Your task to perform on an android device: Go to location settings Image 0: 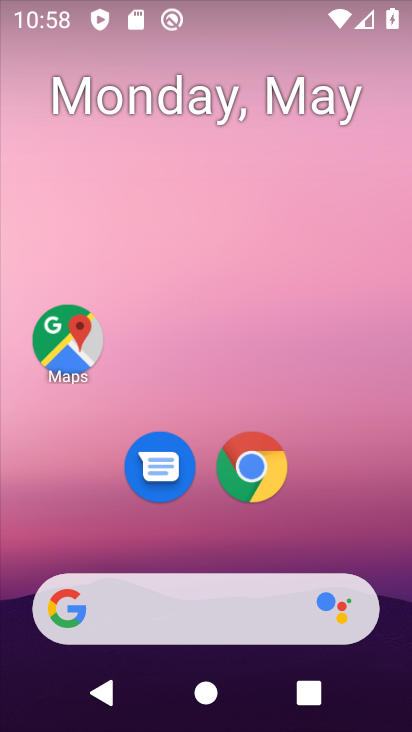
Step 0: drag from (380, 525) to (374, 39)
Your task to perform on an android device: Go to location settings Image 1: 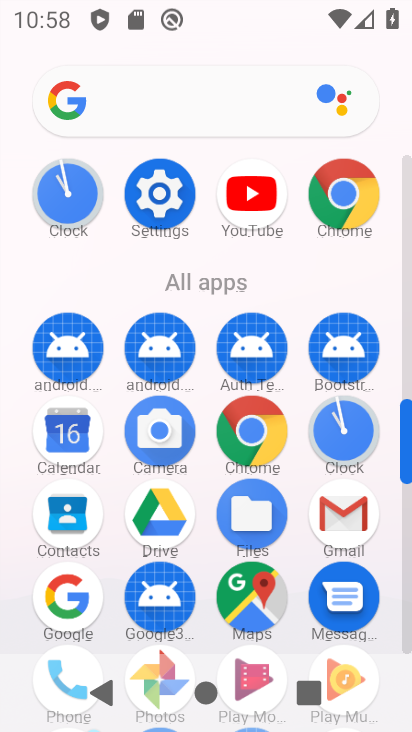
Step 1: click (136, 238)
Your task to perform on an android device: Go to location settings Image 2: 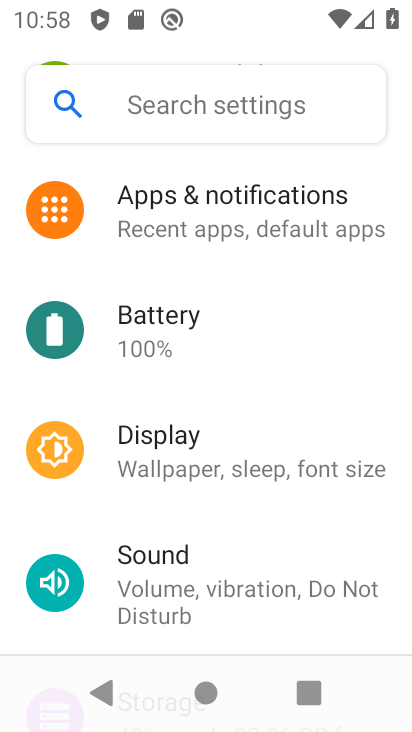
Step 2: drag from (168, 611) to (194, 191)
Your task to perform on an android device: Go to location settings Image 3: 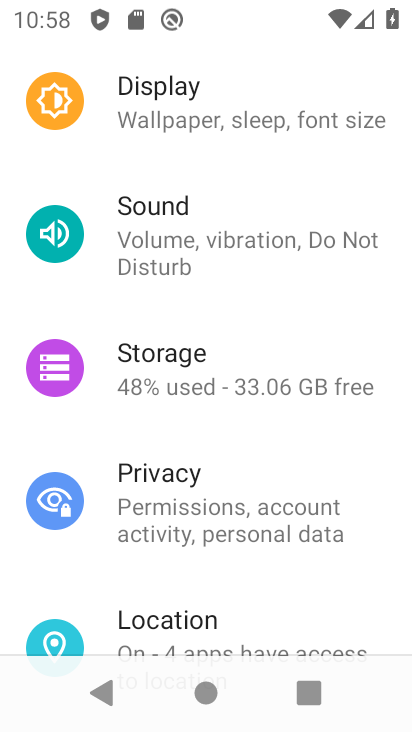
Step 3: click (204, 601)
Your task to perform on an android device: Go to location settings Image 4: 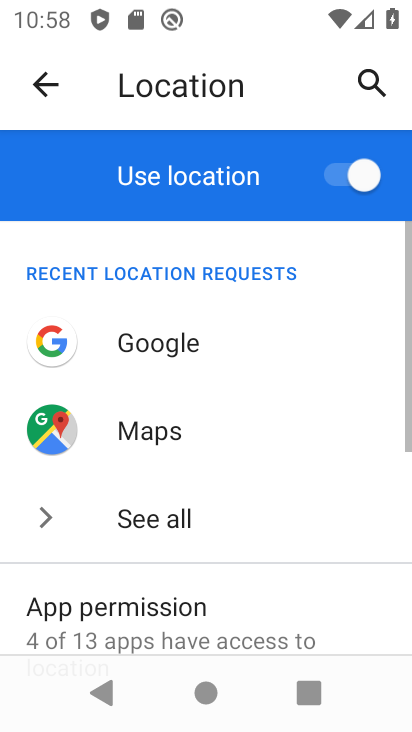
Step 4: task complete